Your task to perform on an android device: Open Amazon Image 0: 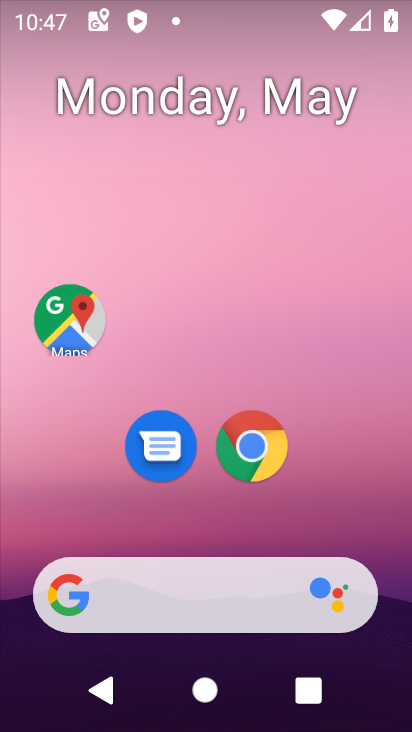
Step 0: drag from (195, 591) to (199, 158)
Your task to perform on an android device: Open Amazon Image 1: 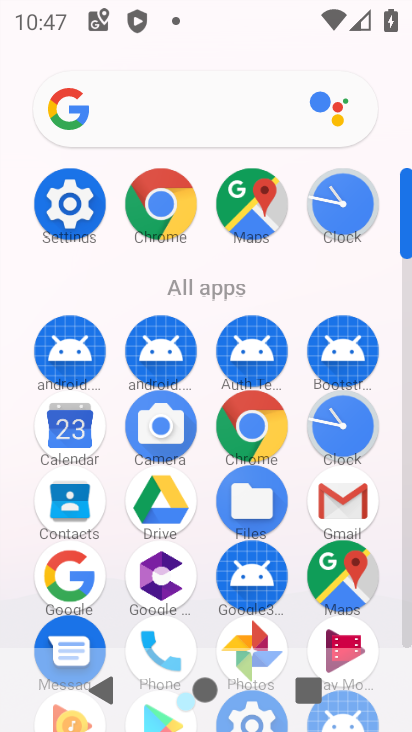
Step 1: click (175, 210)
Your task to perform on an android device: Open Amazon Image 2: 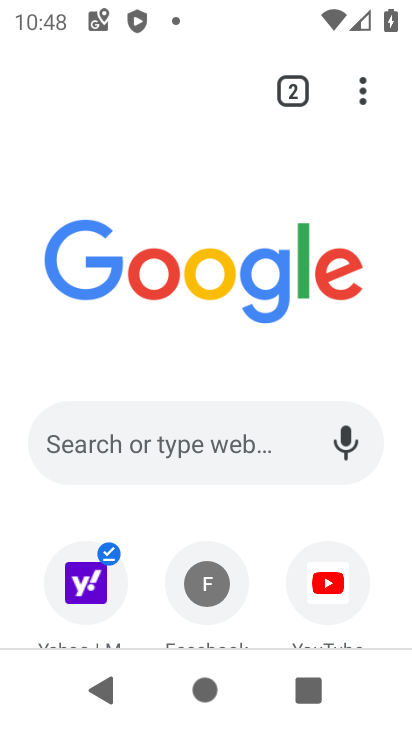
Step 2: drag from (286, 605) to (293, 155)
Your task to perform on an android device: Open Amazon Image 3: 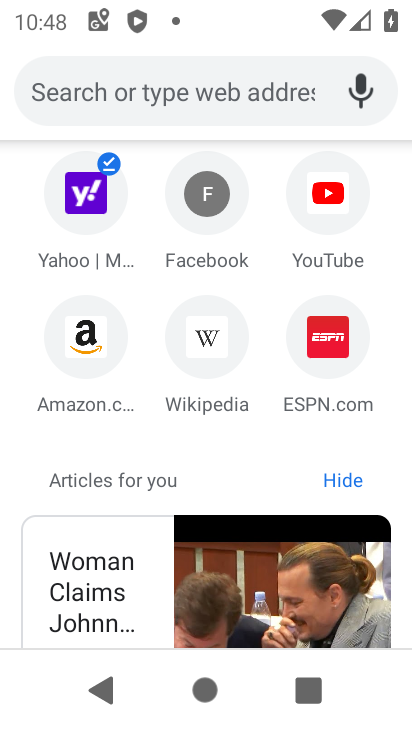
Step 3: click (72, 357)
Your task to perform on an android device: Open Amazon Image 4: 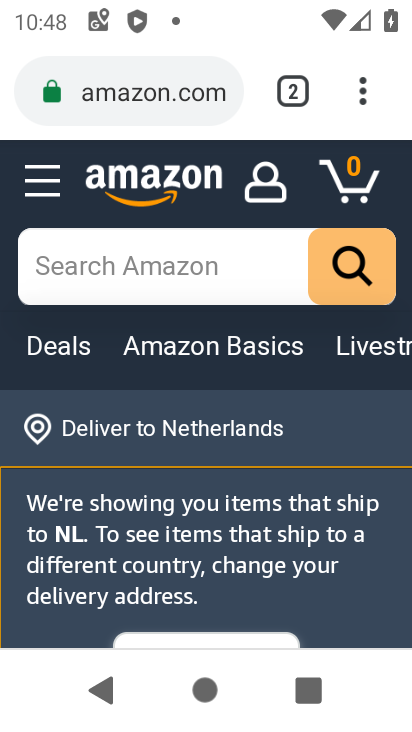
Step 4: task complete